Your task to perform on an android device: turn off notifications settings in the gmail app Image 0: 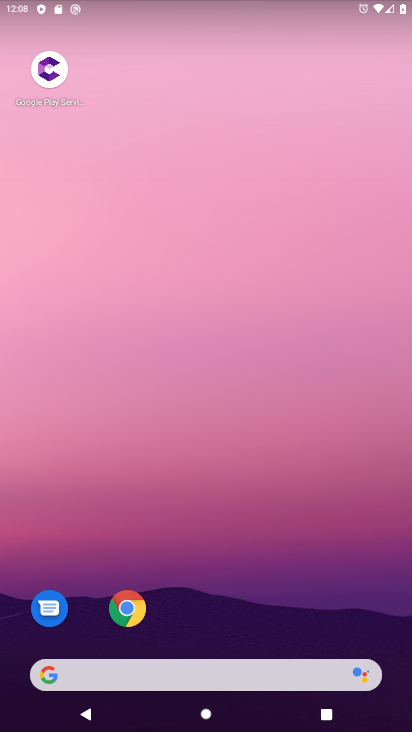
Step 0: drag from (247, 656) to (262, 439)
Your task to perform on an android device: turn off notifications settings in the gmail app Image 1: 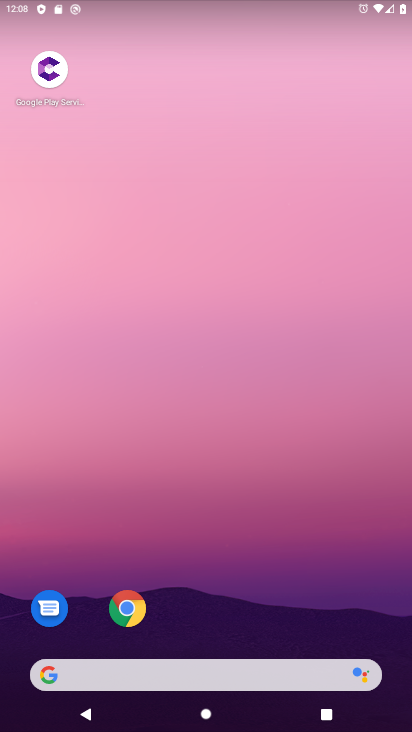
Step 1: drag from (233, 640) to (252, 344)
Your task to perform on an android device: turn off notifications settings in the gmail app Image 2: 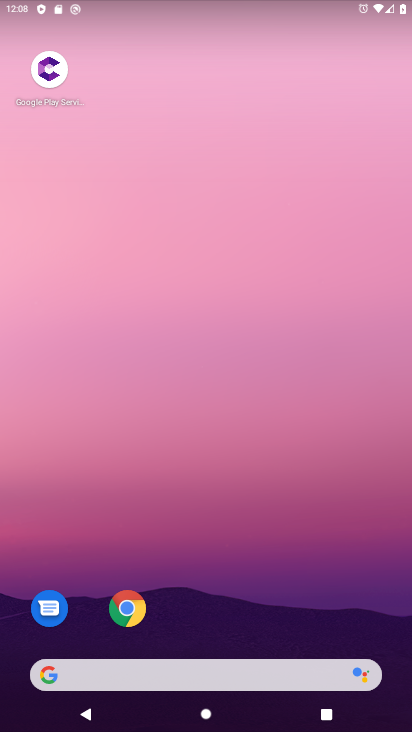
Step 2: drag from (273, 619) to (291, 316)
Your task to perform on an android device: turn off notifications settings in the gmail app Image 3: 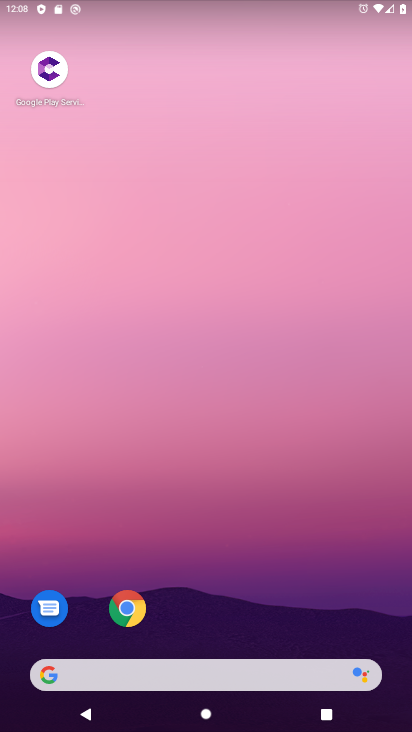
Step 3: drag from (269, 624) to (289, 224)
Your task to perform on an android device: turn off notifications settings in the gmail app Image 4: 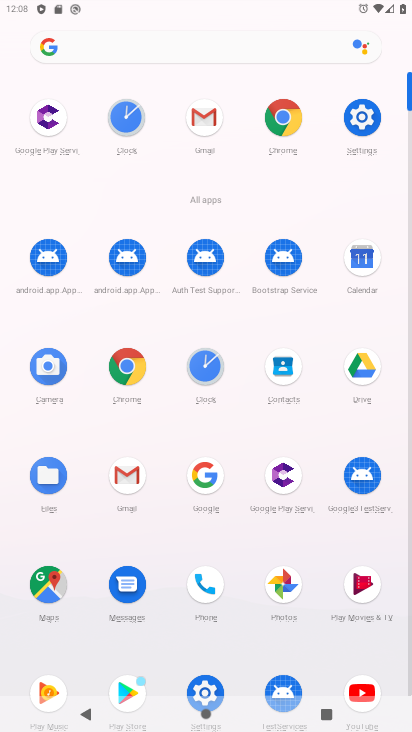
Step 4: click (129, 496)
Your task to perform on an android device: turn off notifications settings in the gmail app Image 5: 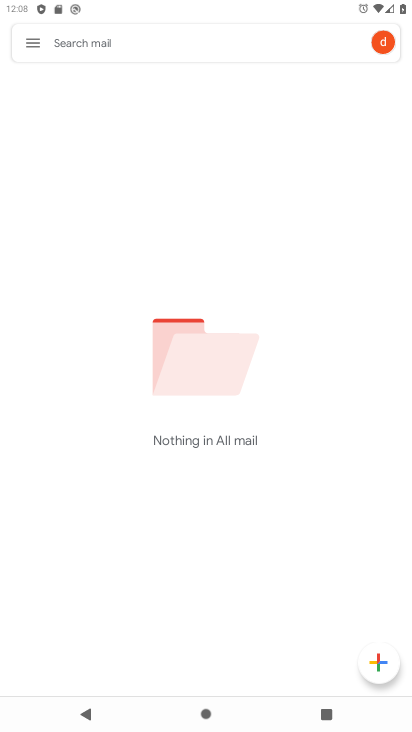
Step 5: click (37, 42)
Your task to perform on an android device: turn off notifications settings in the gmail app Image 6: 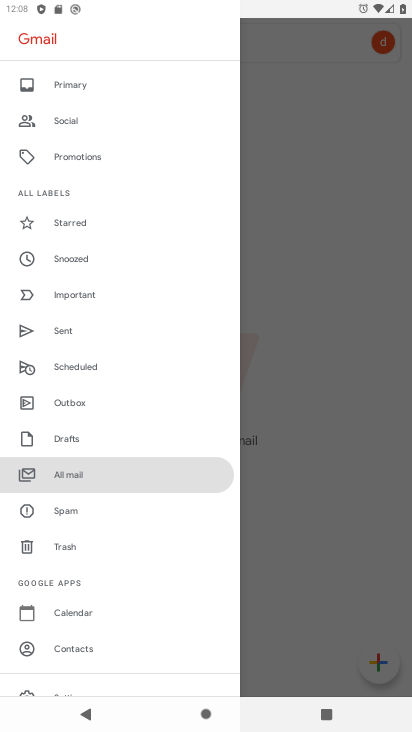
Step 6: drag from (118, 621) to (133, 487)
Your task to perform on an android device: turn off notifications settings in the gmail app Image 7: 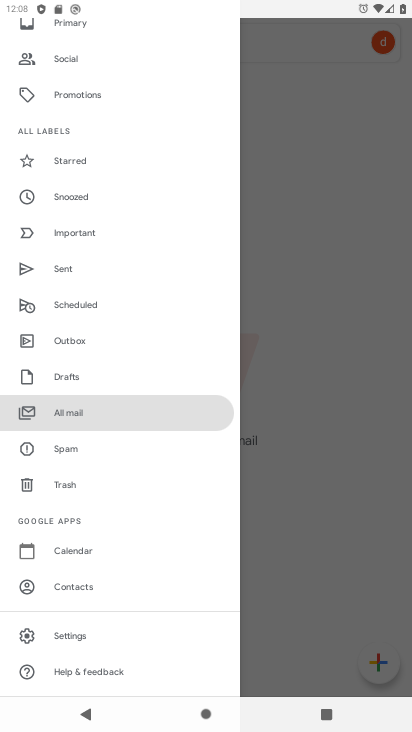
Step 7: click (102, 640)
Your task to perform on an android device: turn off notifications settings in the gmail app Image 8: 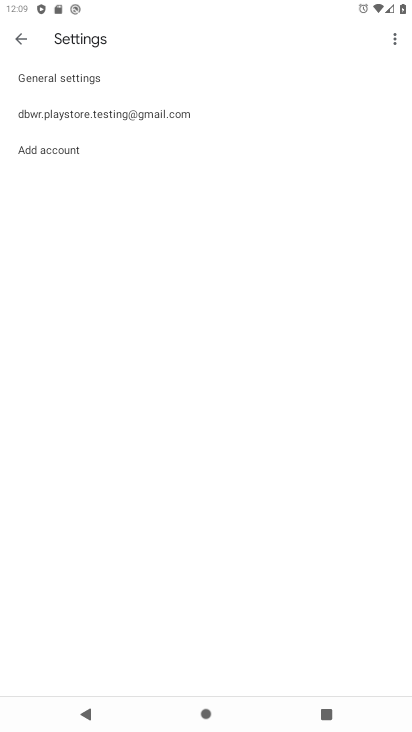
Step 8: click (168, 83)
Your task to perform on an android device: turn off notifications settings in the gmail app Image 9: 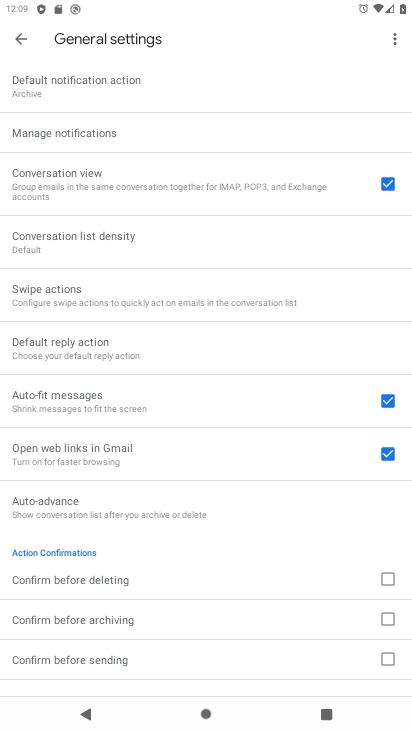
Step 9: click (158, 135)
Your task to perform on an android device: turn off notifications settings in the gmail app Image 10: 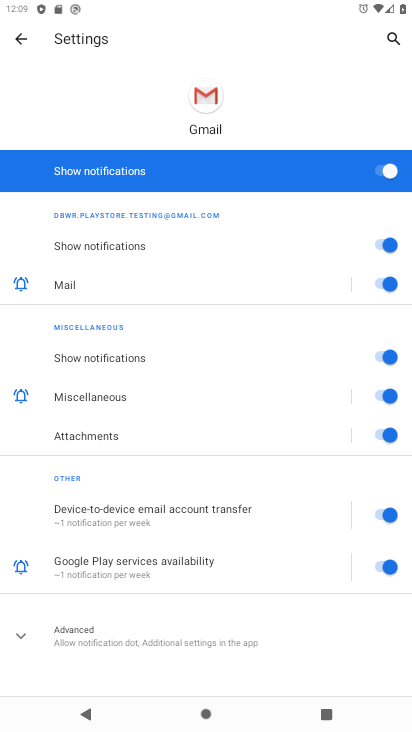
Step 10: click (329, 181)
Your task to perform on an android device: turn off notifications settings in the gmail app Image 11: 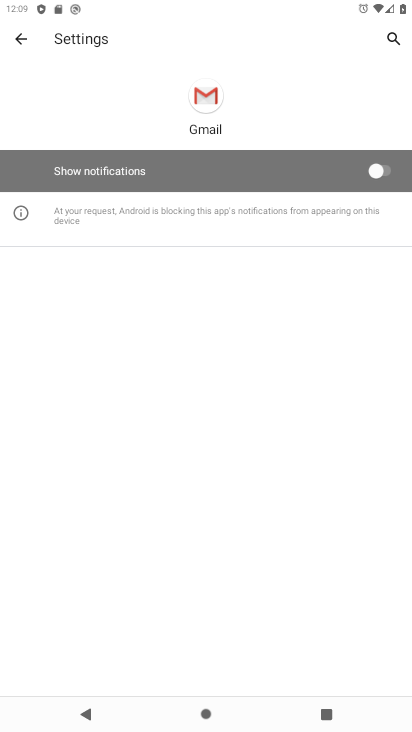
Step 11: task complete